Your task to perform on an android device: turn off location history Image 0: 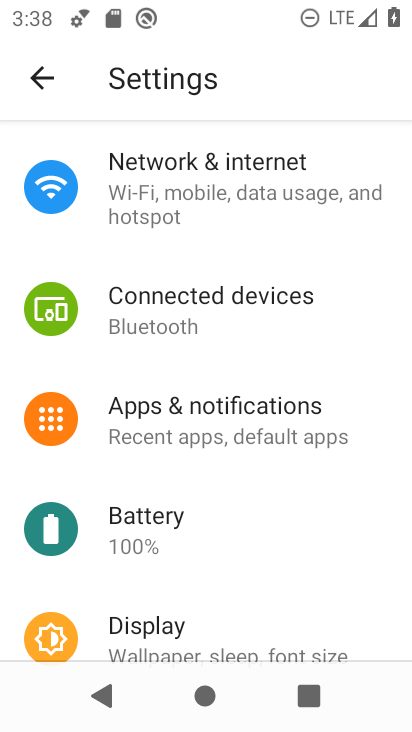
Step 0: press home button
Your task to perform on an android device: turn off location history Image 1: 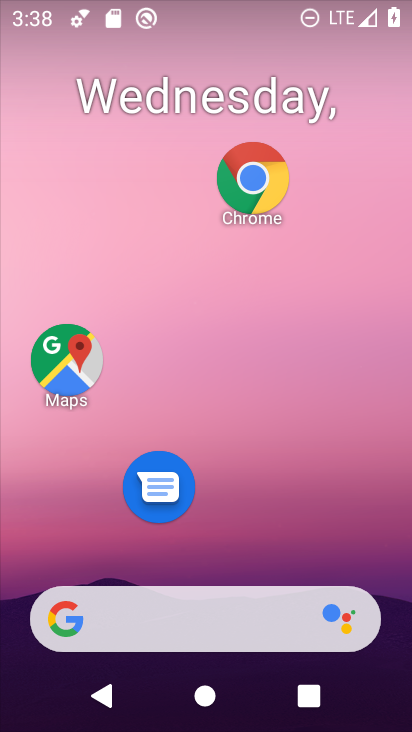
Step 1: drag from (242, 505) to (225, 262)
Your task to perform on an android device: turn off location history Image 2: 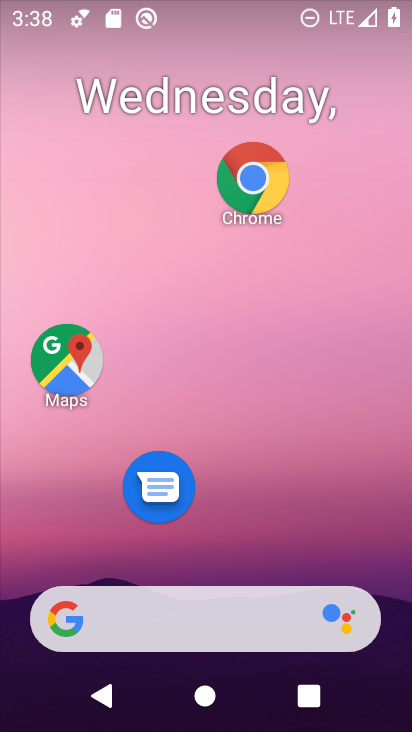
Step 2: drag from (151, 544) to (142, 348)
Your task to perform on an android device: turn off location history Image 3: 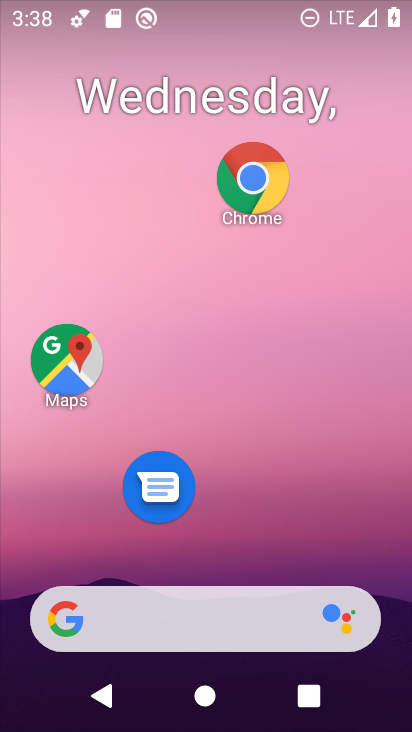
Step 3: drag from (189, 574) to (176, 187)
Your task to perform on an android device: turn off location history Image 4: 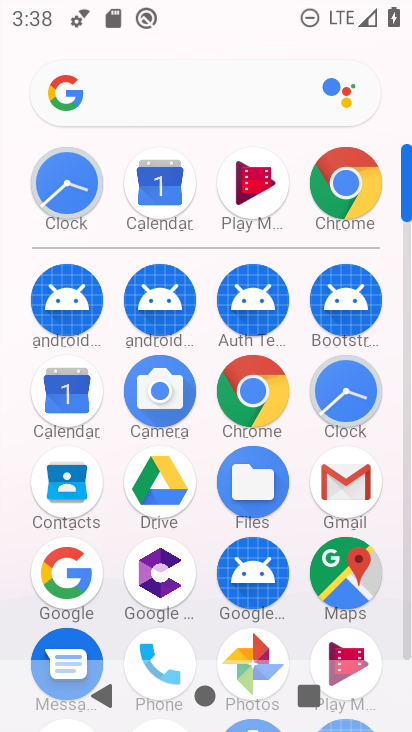
Step 4: drag from (198, 479) to (197, 190)
Your task to perform on an android device: turn off location history Image 5: 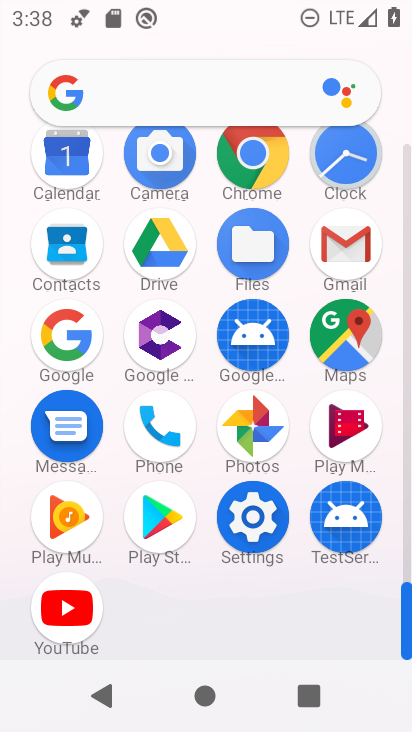
Step 5: click (245, 508)
Your task to perform on an android device: turn off location history Image 6: 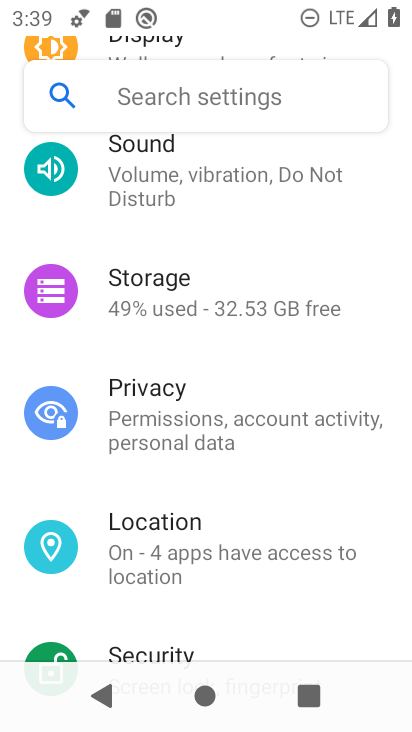
Step 6: click (195, 536)
Your task to perform on an android device: turn off location history Image 7: 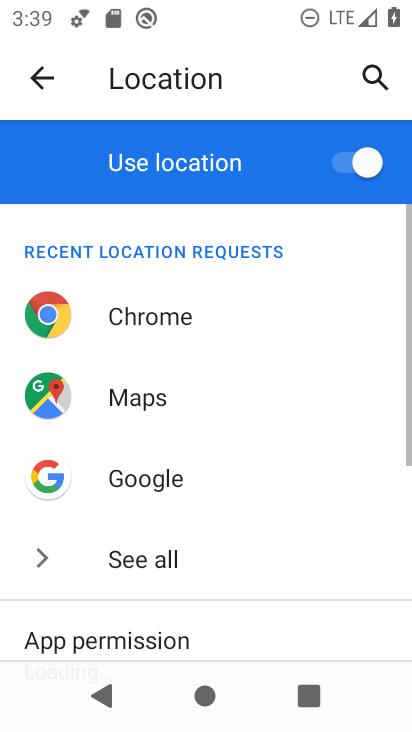
Step 7: drag from (163, 570) to (222, 202)
Your task to perform on an android device: turn off location history Image 8: 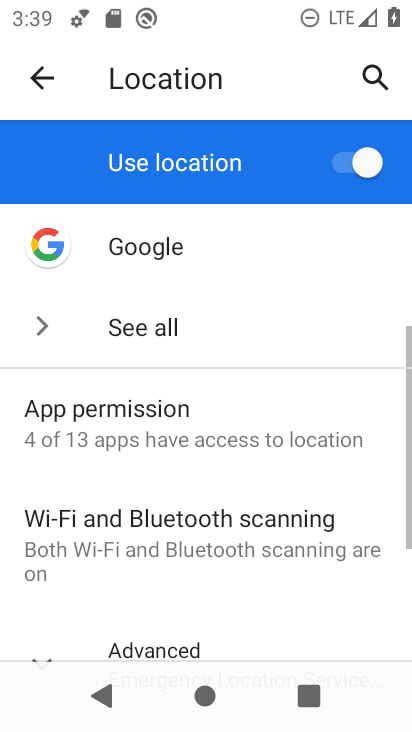
Step 8: drag from (144, 606) to (194, 289)
Your task to perform on an android device: turn off location history Image 9: 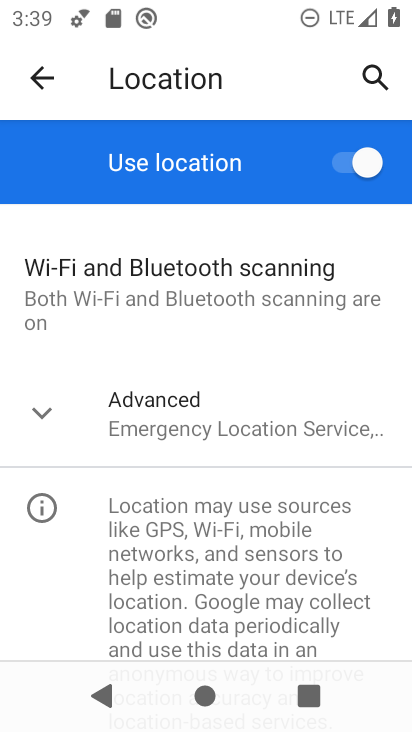
Step 9: click (176, 414)
Your task to perform on an android device: turn off location history Image 10: 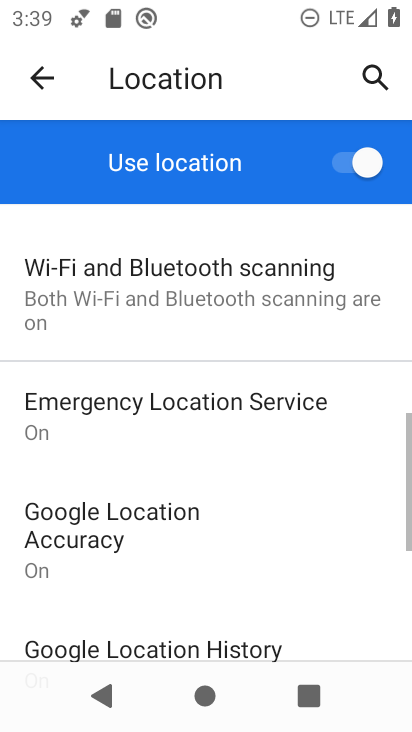
Step 10: drag from (170, 614) to (178, 385)
Your task to perform on an android device: turn off location history Image 11: 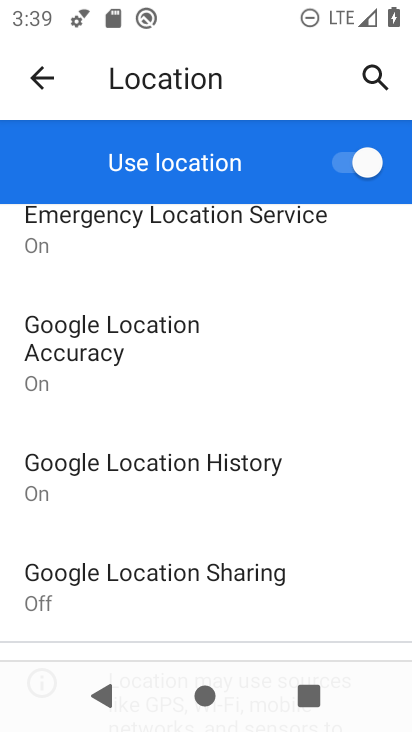
Step 11: click (121, 485)
Your task to perform on an android device: turn off location history Image 12: 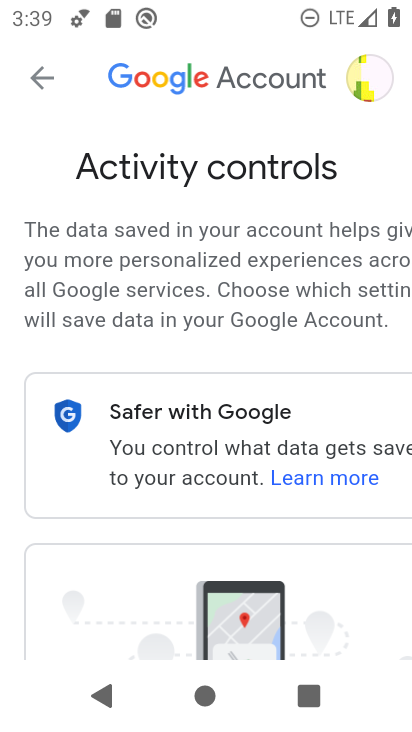
Step 12: drag from (251, 529) to (240, 193)
Your task to perform on an android device: turn off location history Image 13: 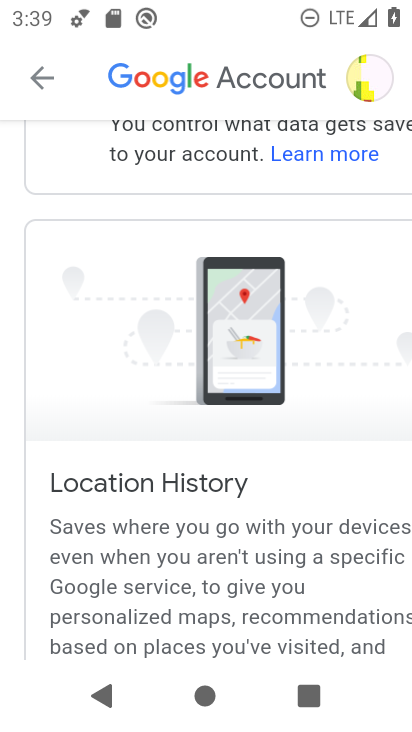
Step 13: drag from (248, 527) to (206, 229)
Your task to perform on an android device: turn off location history Image 14: 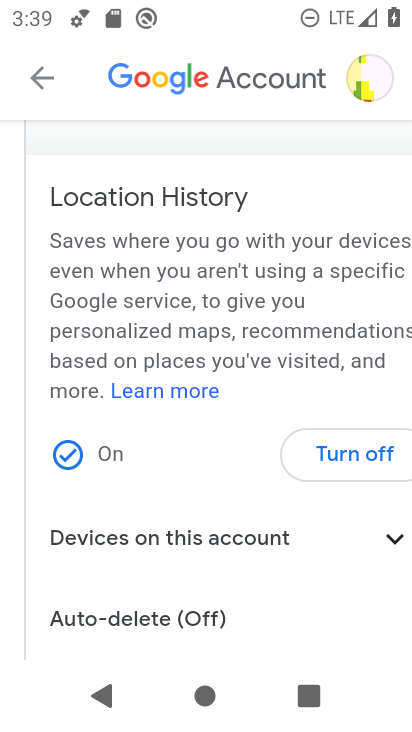
Step 14: click (334, 466)
Your task to perform on an android device: turn off location history Image 15: 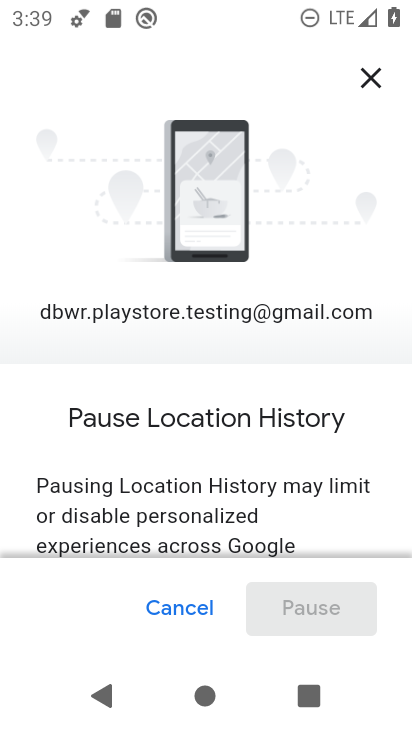
Step 15: task complete